Your task to perform on an android device: check the backup settings in the google photos Image 0: 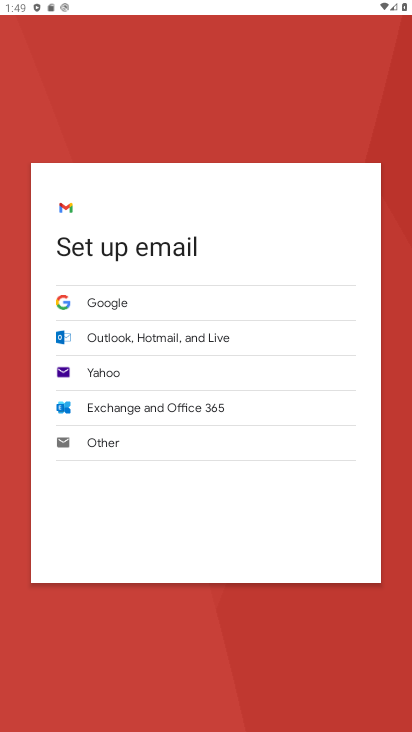
Step 0: task complete